Your task to perform on an android device: open a new tab in the chrome app Image 0: 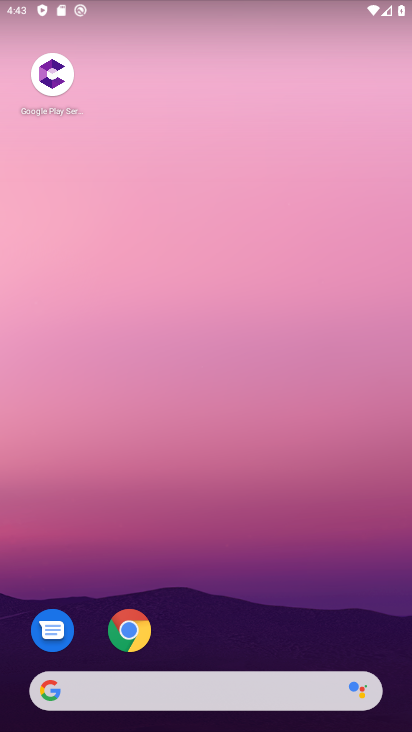
Step 0: click (134, 652)
Your task to perform on an android device: open a new tab in the chrome app Image 1: 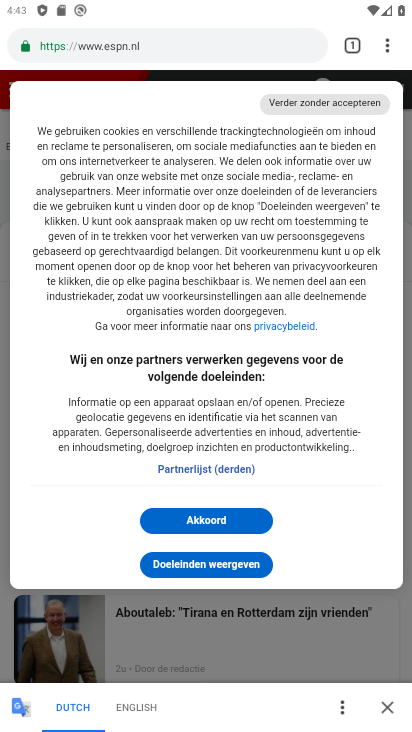
Step 1: click (352, 57)
Your task to perform on an android device: open a new tab in the chrome app Image 2: 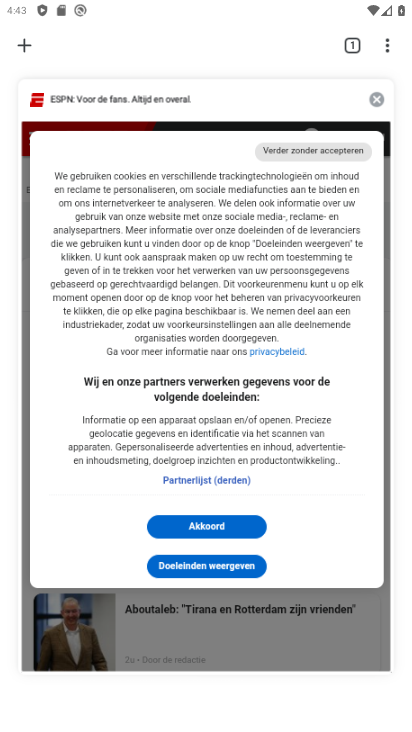
Step 2: click (22, 44)
Your task to perform on an android device: open a new tab in the chrome app Image 3: 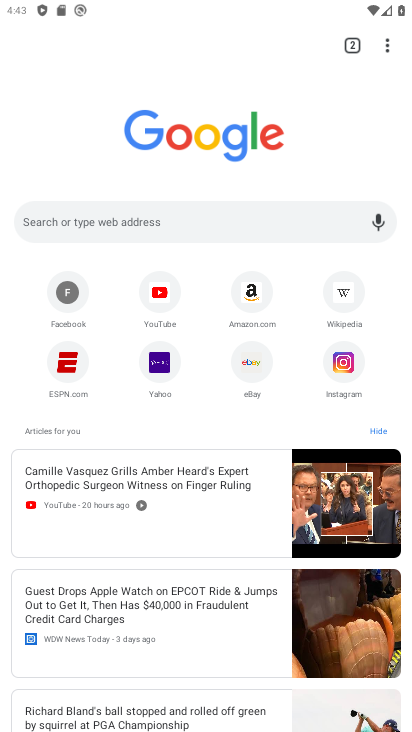
Step 3: task complete